Your task to perform on an android device: change timer sound Image 0: 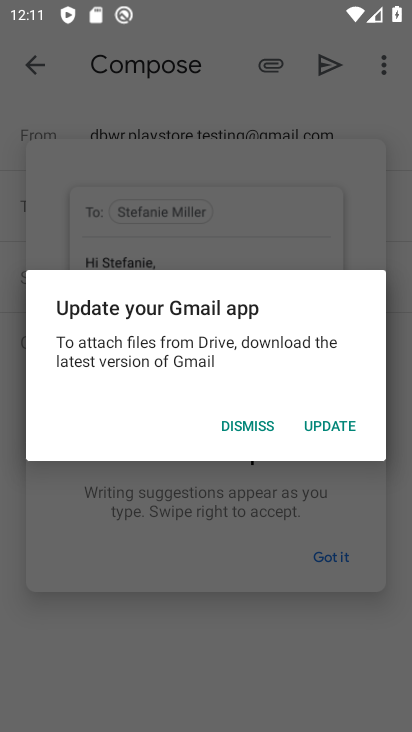
Step 0: press home button
Your task to perform on an android device: change timer sound Image 1: 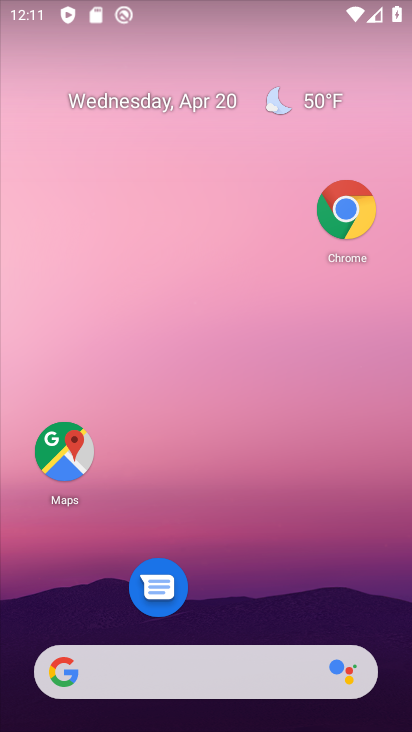
Step 1: drag from (226, 578) to (398, 24)
Your task to perform on an android device: change timer sound Image 2: 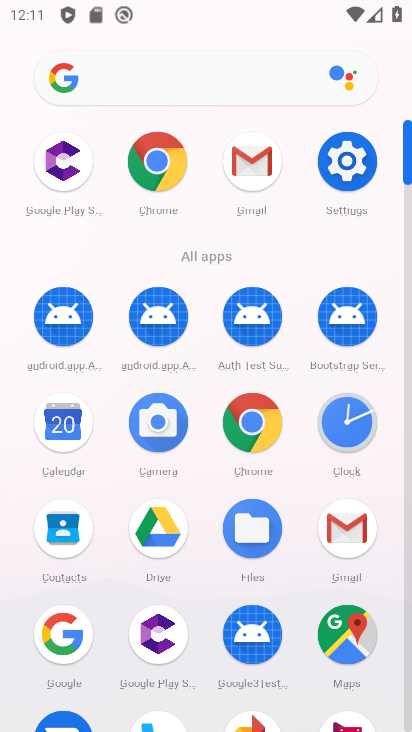
Step 2: click (357, 423)
Your task to perform on an android device: change timer sound Image 3: 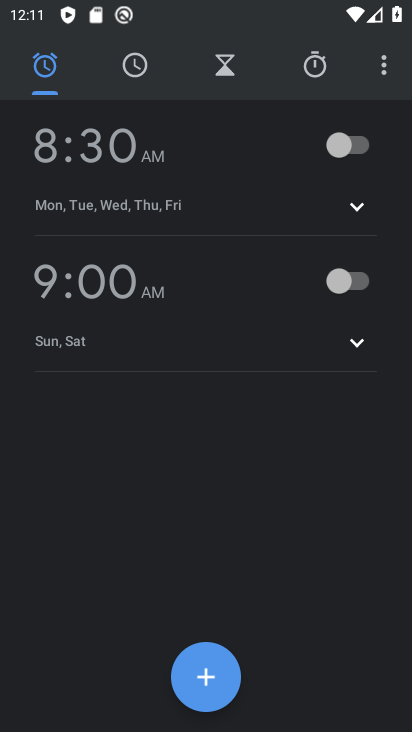
Step 3: click (382, 63)
Your task to perform on an android device: change timer sound Image 4: 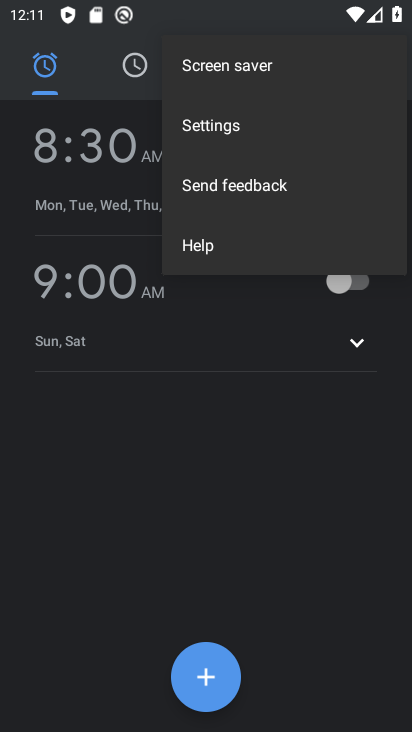
Step 4: click (223, 113)
Your task to perform on an android device: change timer sound Image 5: 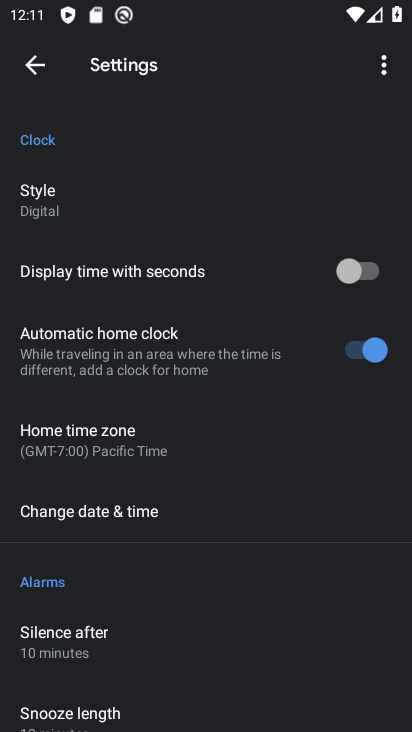
Step 5: drag from (84, 620) to (176, 252)
Your task to perform on an android device: change timer sound Image 6: 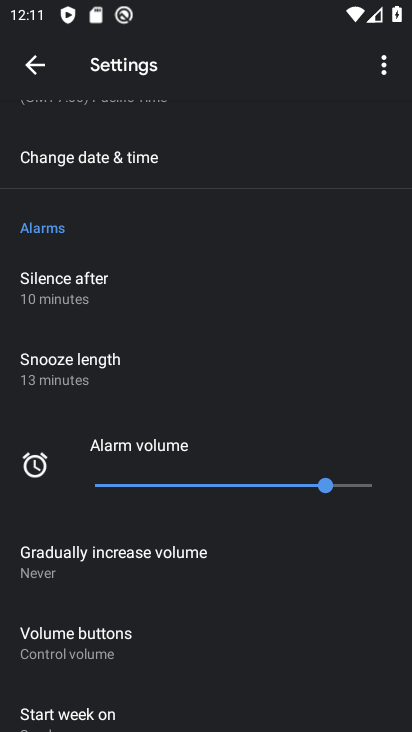
Step 6: drag from (166, 519) to (250, 140)
Your task to perform on an android device: change timer sound Image 7: 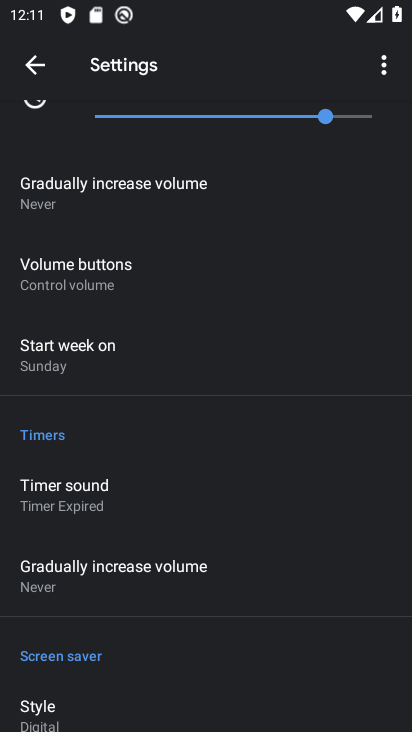
Step 7: click (78, 504)
Your task to perform on an android device: change timer sound Image 8: 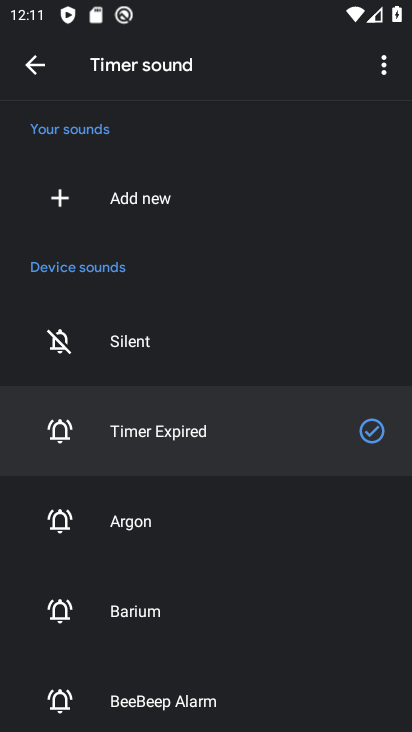
Step 8: click (172, 683)
Your task to perform on an android device: change timer sound Image 9: 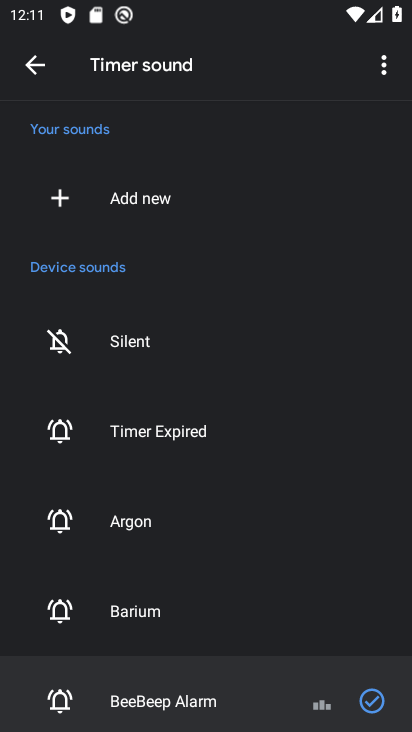
Step 9: task complete